Your task to perform on an android device: delete browsing data in the chrome app Image 0: 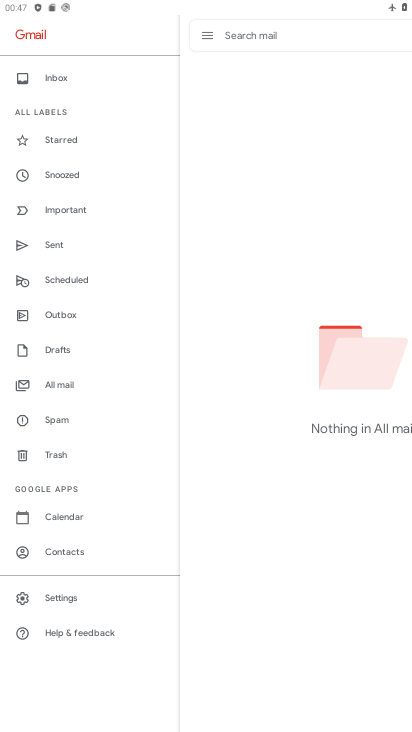
Step 0: press home button
Your task to perform on an android device: delete browsing data in the chrome app Image 1: 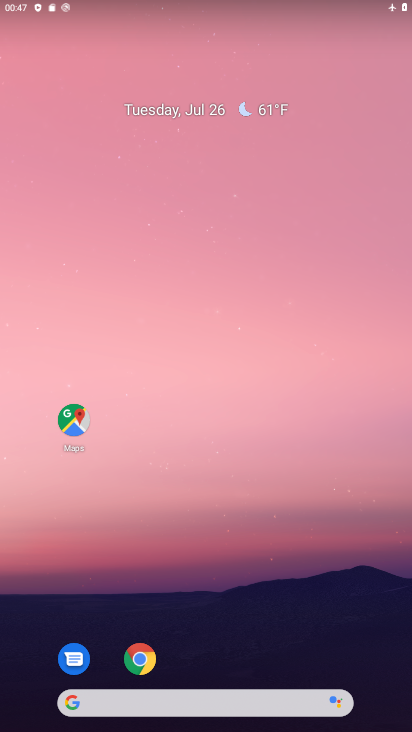
Step 1: drag from (227, 573) to (158, 23)
Your task to perform on an android device: delete browsing data in the chrome app Image 2: 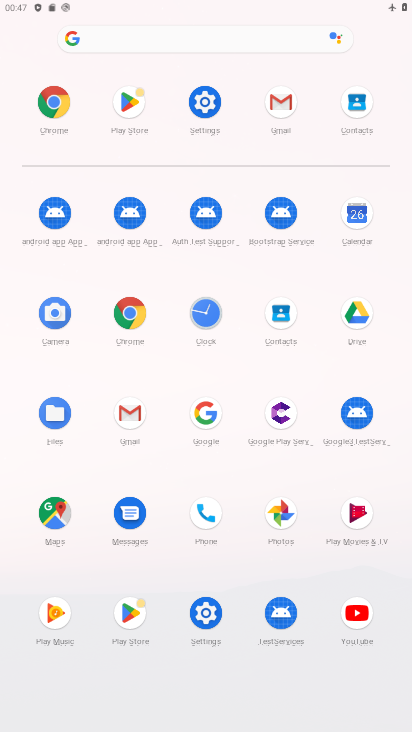
Step 2: click (133, 315)
Your task to perform on an android device: delete browsing data in the chrome app Image 3: 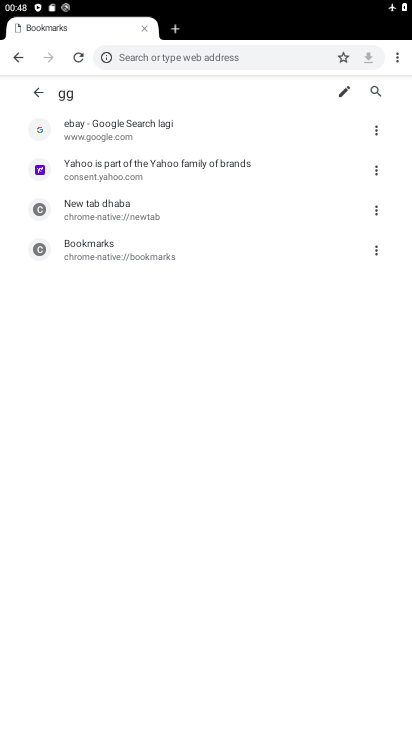
Step 3: click (400, 50)
Your task to perform on an android device: delete browsing data in the chrome app Image 4: 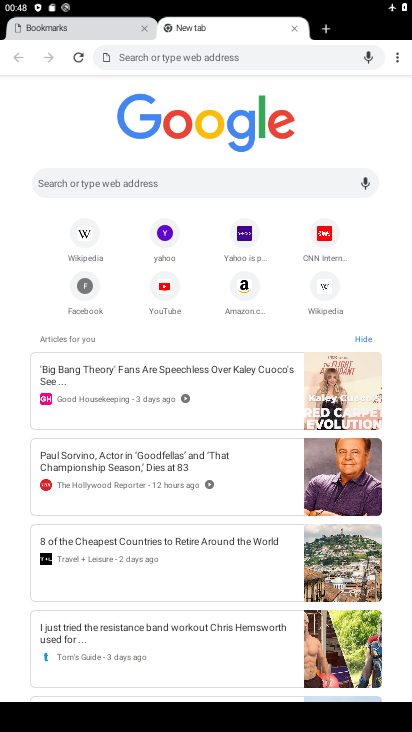
Step 4: click (302, 24)
Your task to perform on an android device: delete browsing data in the chrome app Image 5: 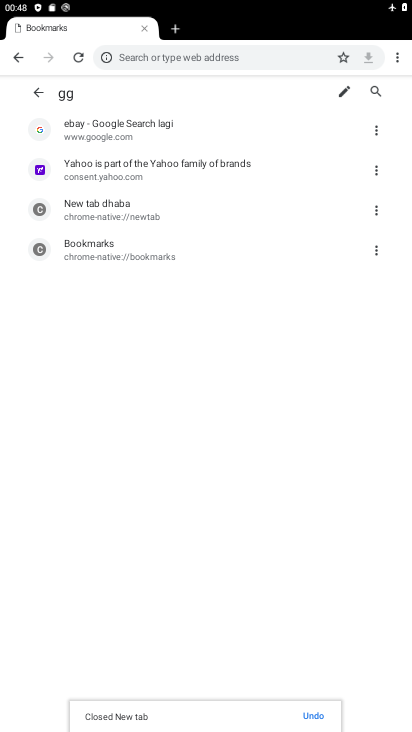
Step 5: drag from (403, 54) to (315, 175)
Your task to perform on an android device: delete browsing data in the chrome app Image 6: 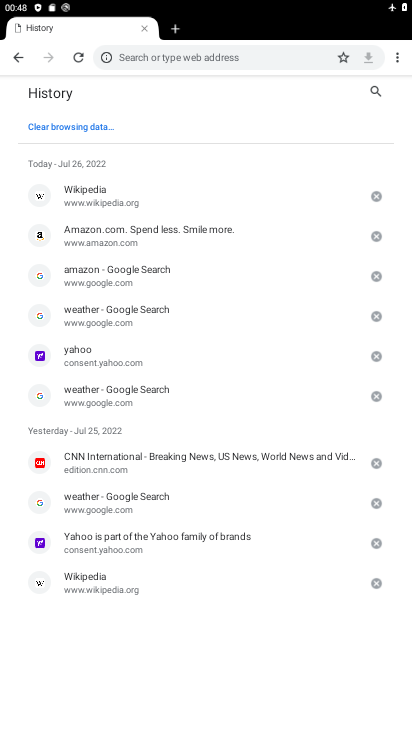
Step 6: click (75, 127)
Your task to perform on an android device: delete browsing data in the chrome app Image 7: 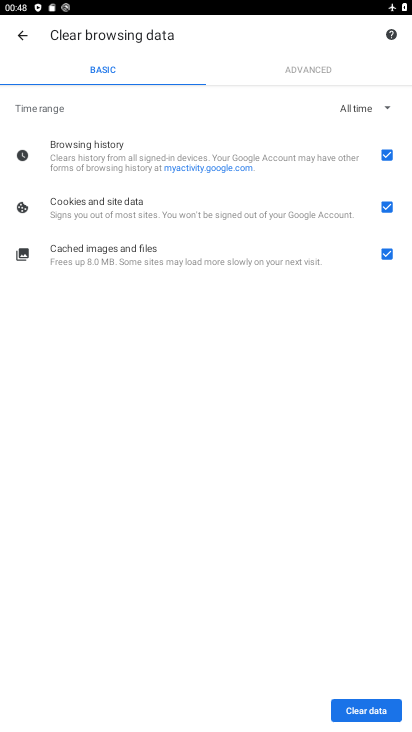
Step 7: click (361, 706)
Your task to perform on an android device: delete browsing data in the chrome app Image 8: 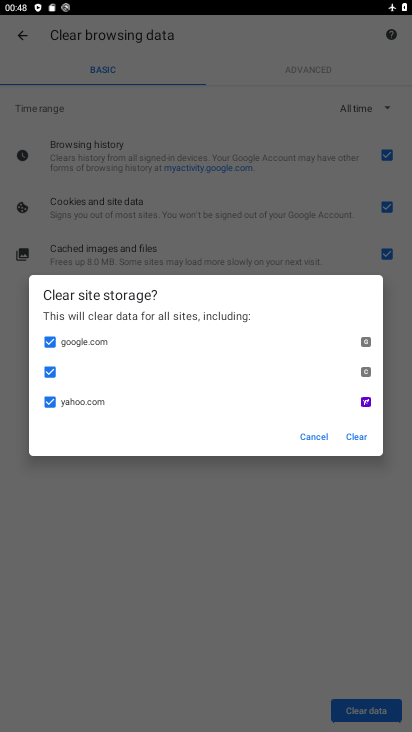
Step 8: click (364, 431)
Your task to perform on an android device: delete browsing data in the chrome app Image 9: 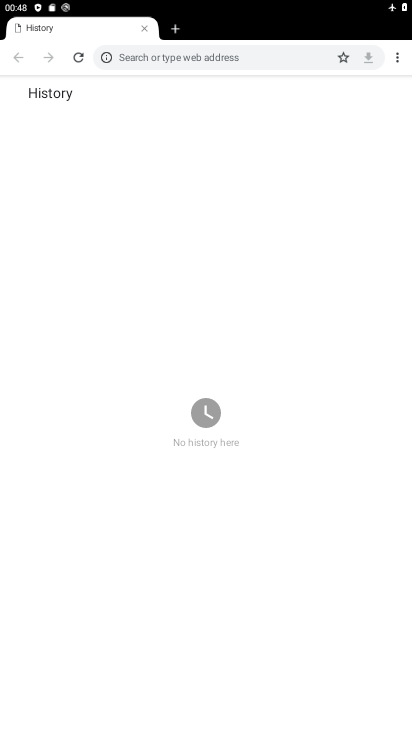
Step 9: task complete